Your task to perform on an android device: set the timer Image 0: 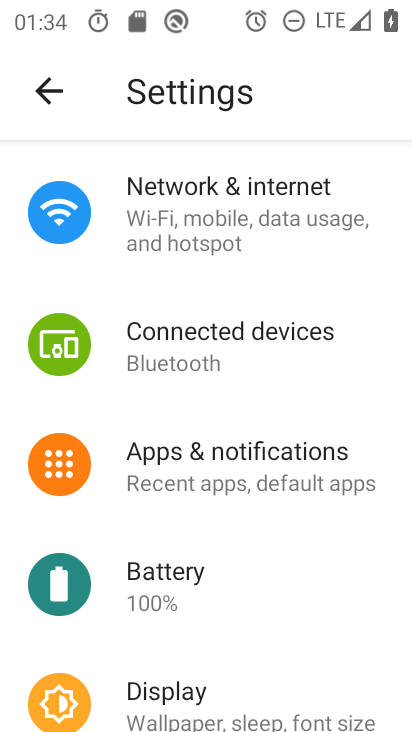
Step 0: press home button
Your task to perform on an android device: set the timer Image 1: 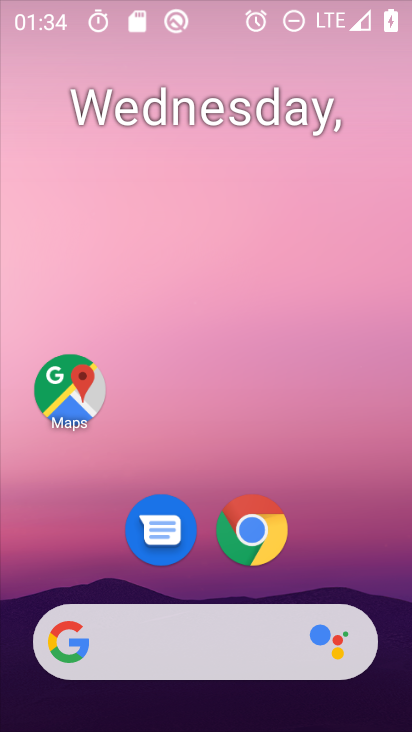
Step 1: drag from (320, 652) to (327, 56)
Your task to perform on an android device: set the timer Image 2: 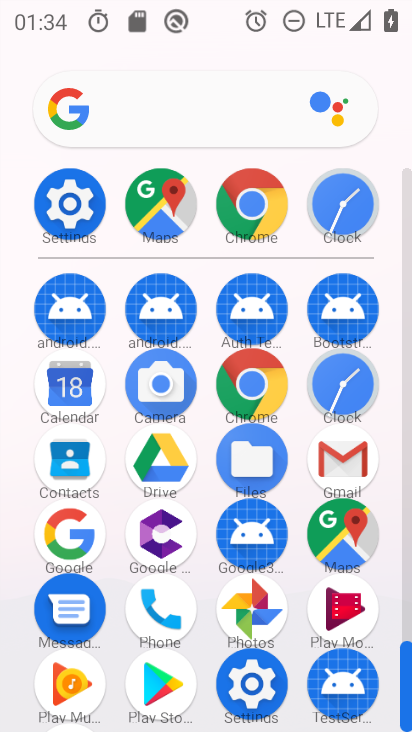
Step 2: click (345, 379)
Your task to perform on an android device: set the timer Image 3: 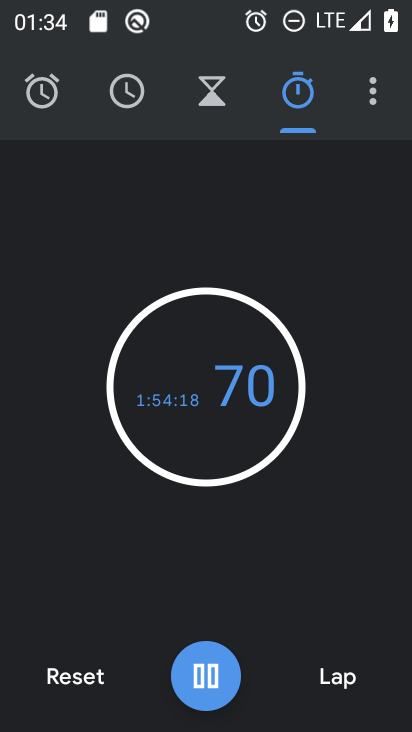
Step 3: click (222, 95)
Your task to perform on an android device: set the timer Image 4: 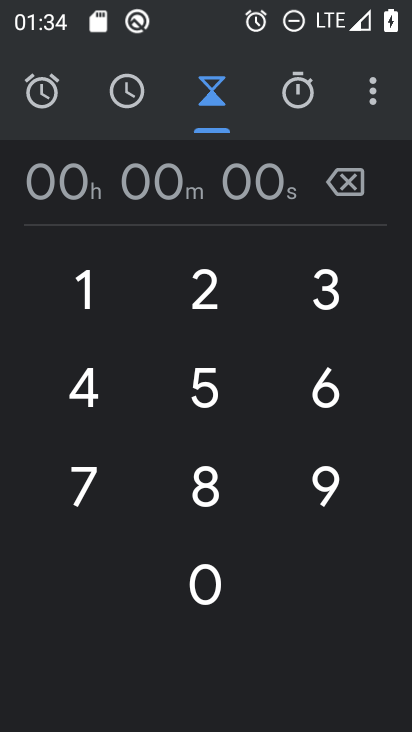
Step 4: click (203, 495)
Your task to perform on an android device: set the timer Image 5: 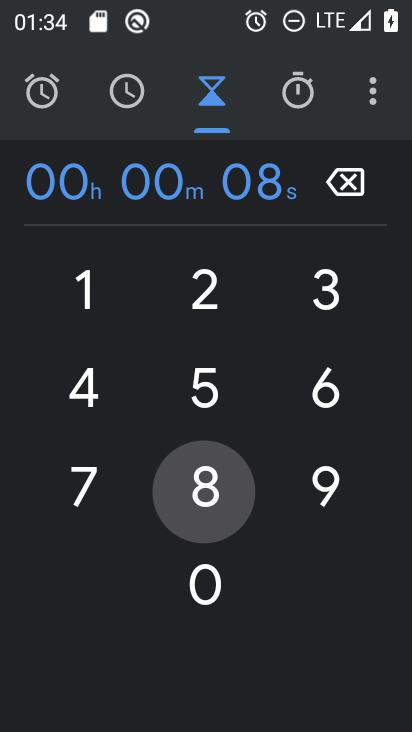
Step 5: click (212, 376)
Your task to perform on an android device: set the timer Image 6: 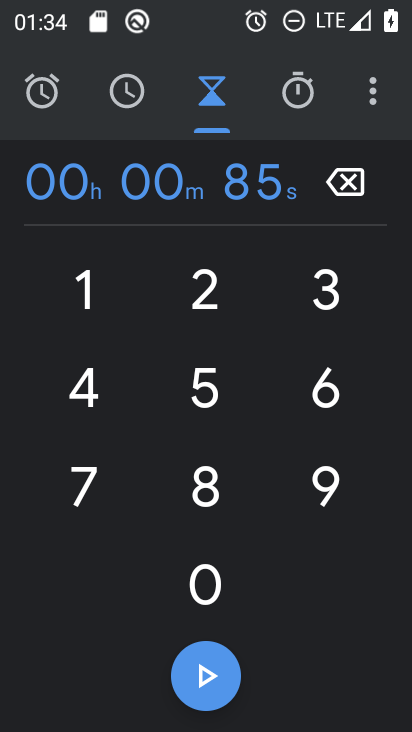
Step 6: click (205, 293)
Your task to perform on an android device: set the timer Image 7: 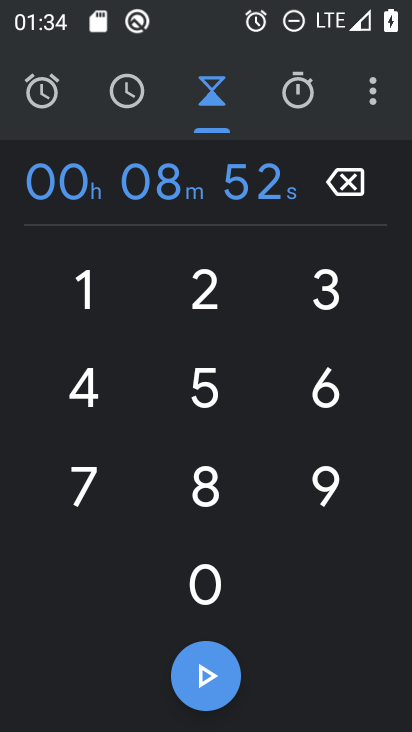
Step 7: click (312, 292)
Your task to perform on an android device: set the timer Image 8: 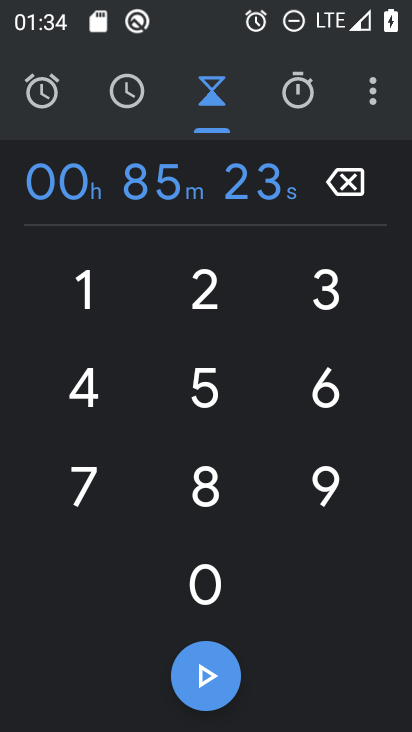
Step 8: click (91, 409)
Your task to perform on an android device: set the timer Image 9: 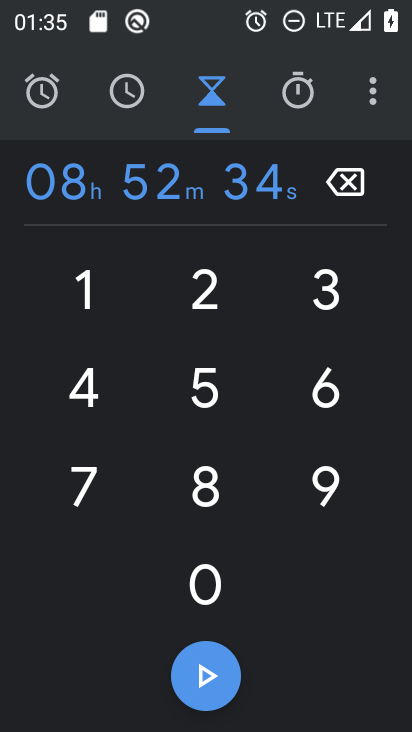
Step 9: click (75, 279)
Your task to perform on an android device: set the timer Image 10: 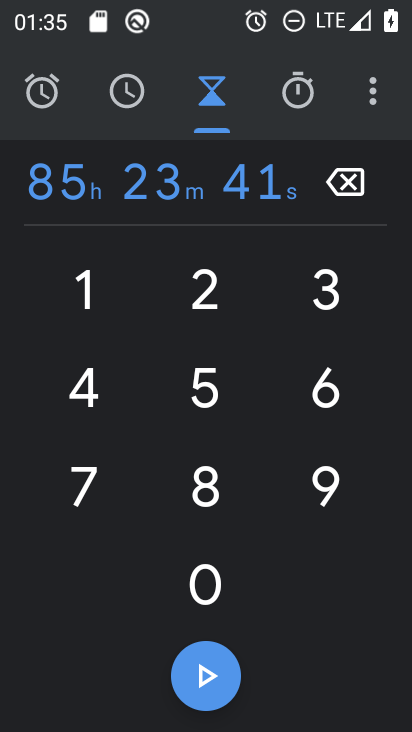
Step 10: click (199, 694)
Your task to perform on an android device: set the timer Image 11: 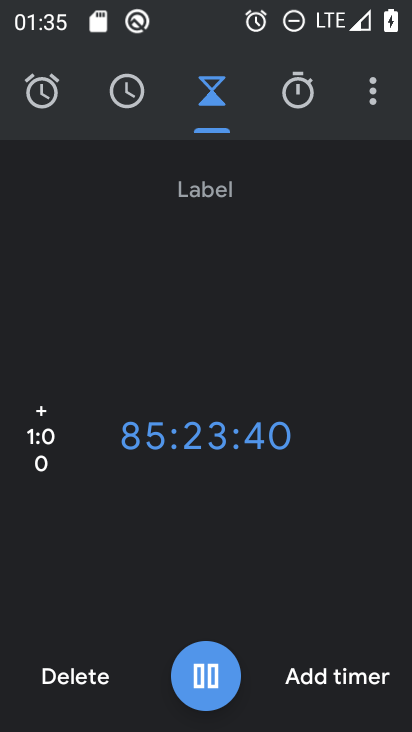
Step 11: task complete